Your task to perform on an android device: Open wifi settings Image 0: 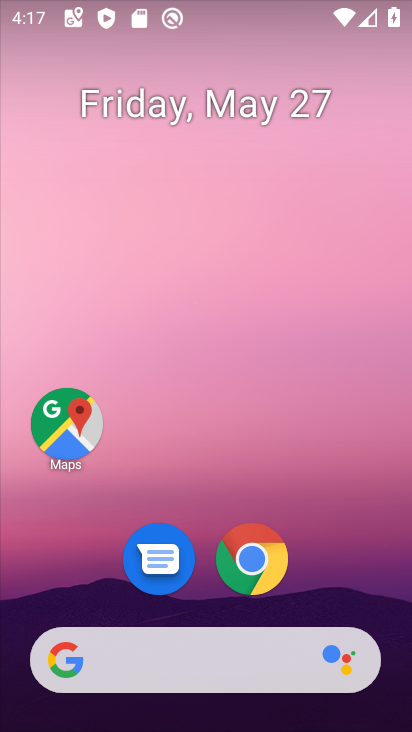
Step 0: drag from (393, 698) to (316, 197)
Your task to perform on an android device: Open wifi settings Image 1: 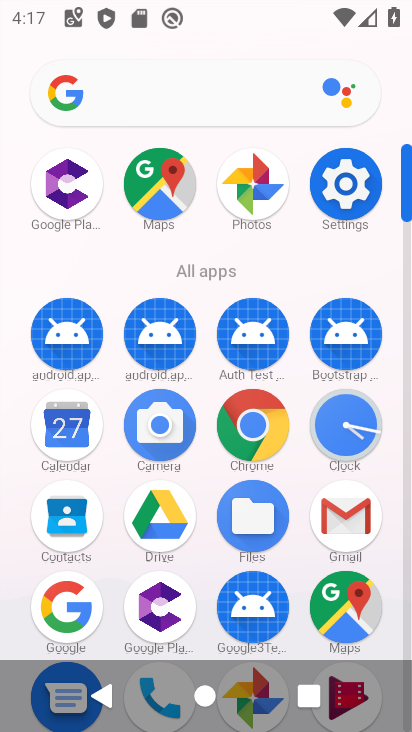
Step 1: click (355, 194)
Your task to perform on an android device: Open wifi settings Image 2: 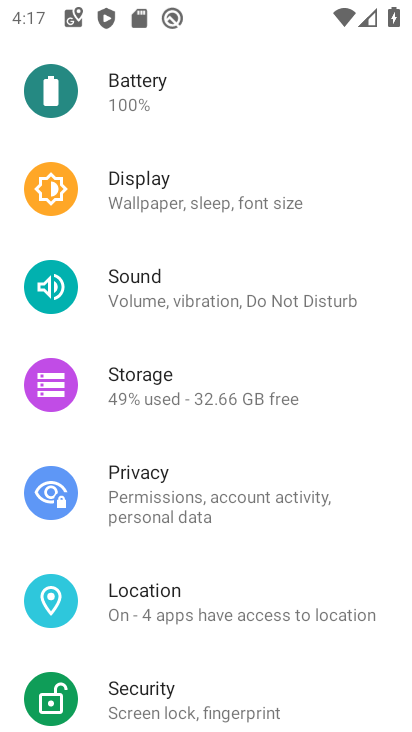
Step 2: drag from (296, 139) to (324, 482)
Your task to perform on an android device: Open wifi settings Image 3: 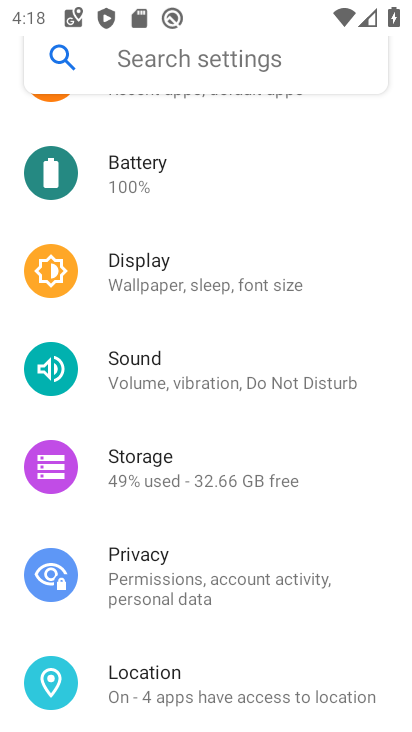
Step 3: drag from (318, 141) to (325, 593)
Your task to perform on an android device: Open wifi settings Image 4: 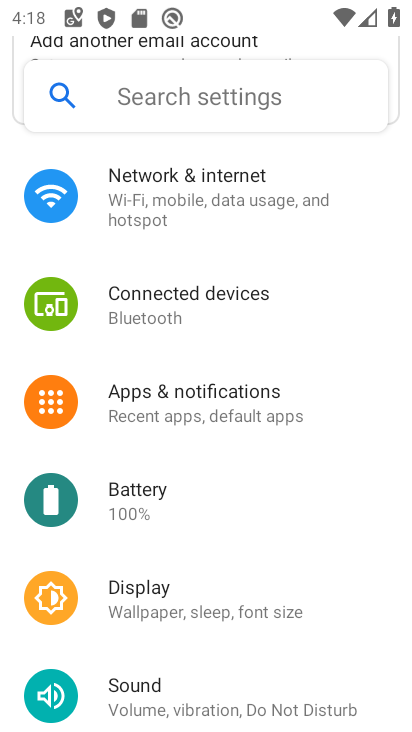
Step 4: click (202, 182)
Your task to perform on an android device: Open wifi settings Image 5: 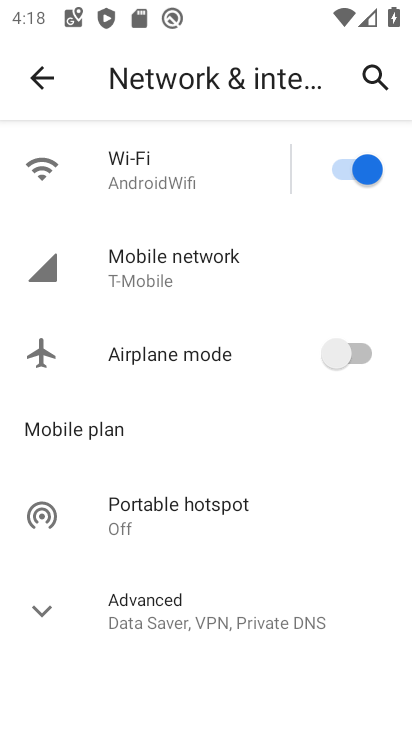
Step 5: click (175, 177)
Your task to perform on an android device: Open wifi settings Image 6: 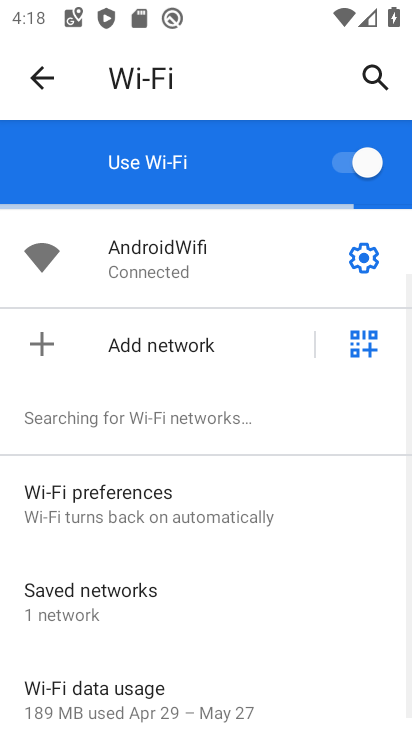
Step 6: click (363, 262)
Your task to perform on an android device: Open wifi settings Image 7: 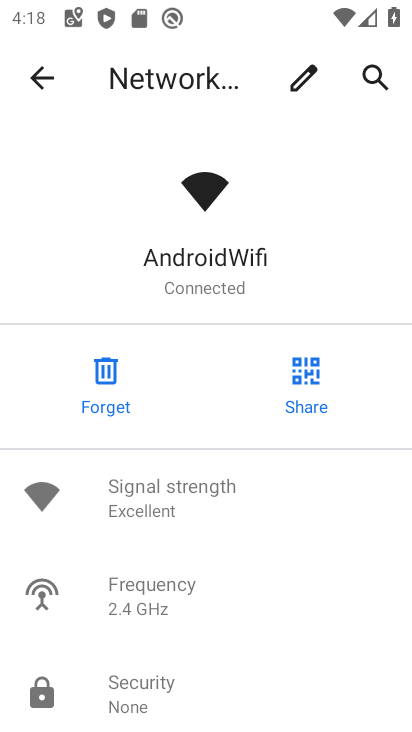
Step 7: task complete